Your task to perform on an android device: toggle javascript in the chrome app Image 0: 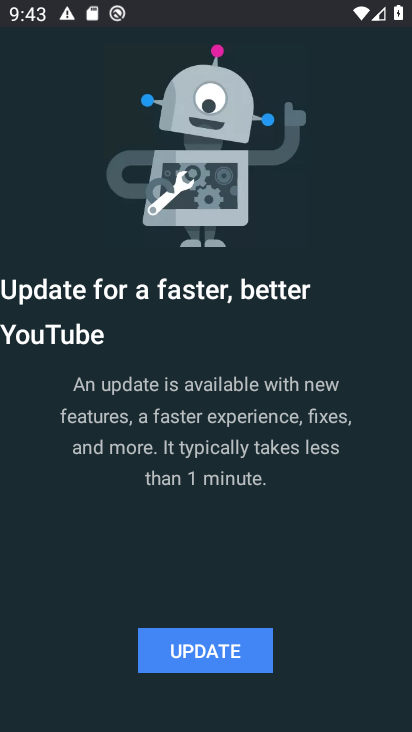
Step 0: press back button
Your task to perform on an android device: toggle javascript in the chrome app Image 1: 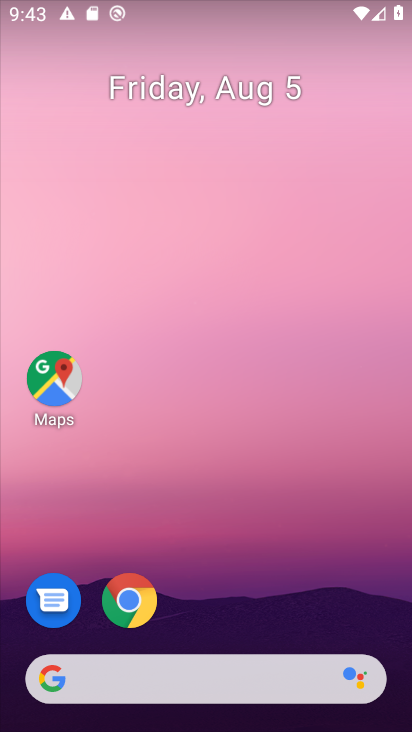
Step 1: click (147, 604)
Your task to perform on an android device: toggle javascript in the chrome app Image 2: 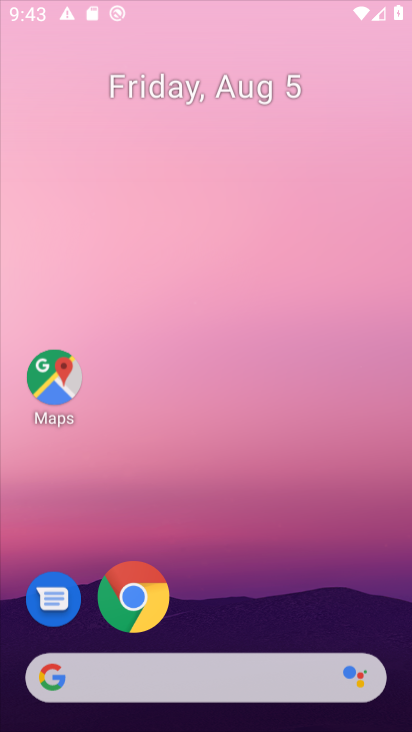
Step 2: click (147, 604)
Your task to perform on an android device: toggle javascript in the chrome app Image 3: 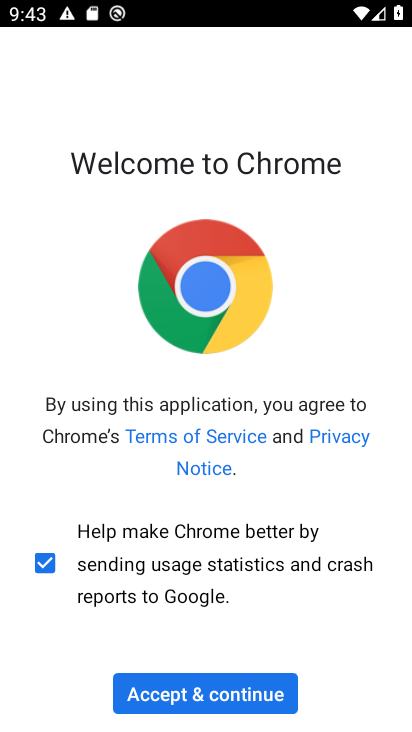
Step 3: click (290, 680)
Your task to perform on an android device: toggle javascript in the chrome app Image 4: 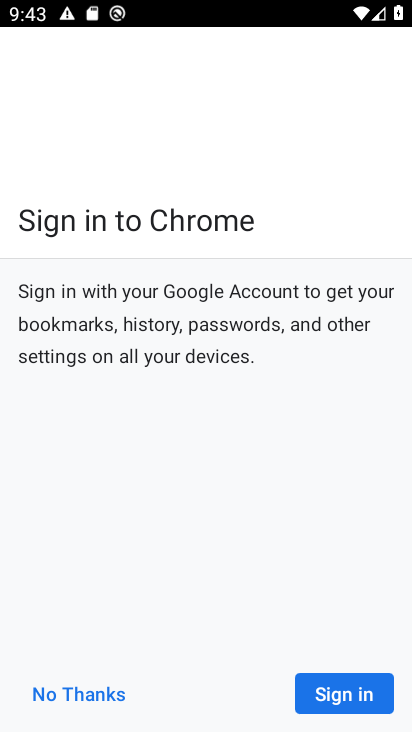
Step 4: click (274, 678)
Your task to perform on an android device: toggle javascript in the chrome app Image 5: 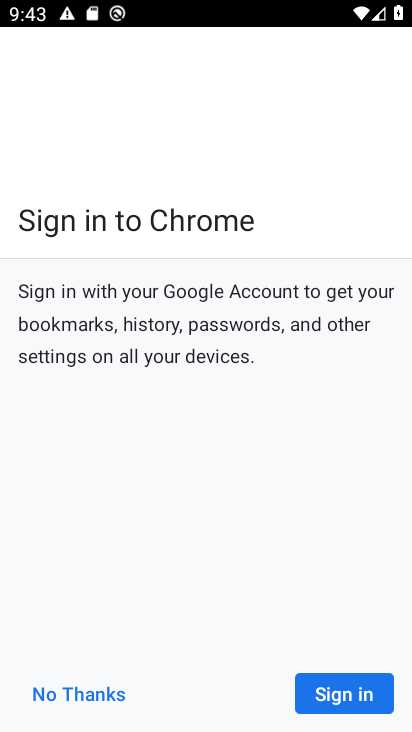
Step 5: click (106, 688)
Your task to perform on an android device: toggle javascript in the chrome app Image 6: 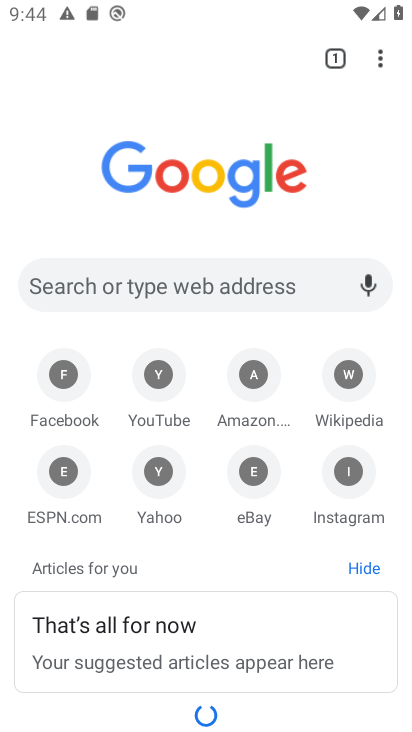
Step 6: click (386, 61)
Your task to perform on an android device: toggle javascript in the chrome app Image 7: 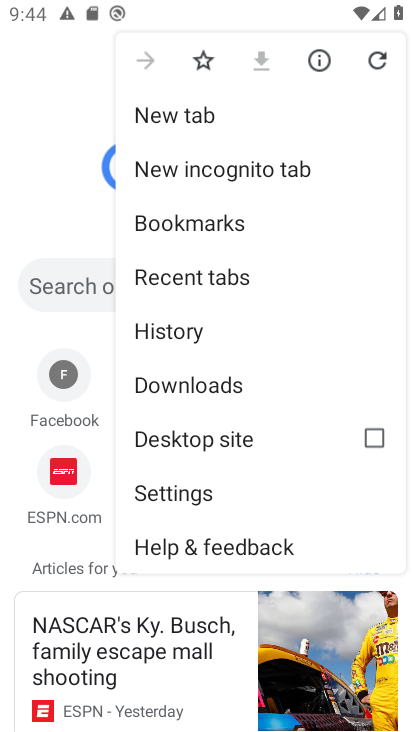
Step 7: click (311, 501)
Your task to perform on an android device: toggle javascript in the chrome app Image 8: 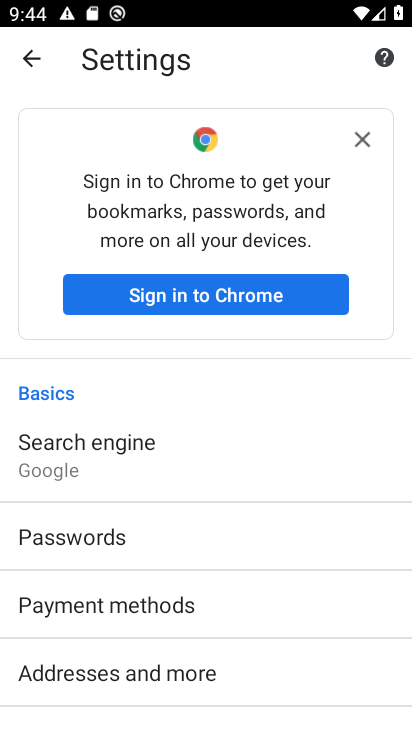
Step 8: drag from (317, 513) to (175, 103)
Your task to perform on an android device: toggle javascript in the chrome app Image 9: 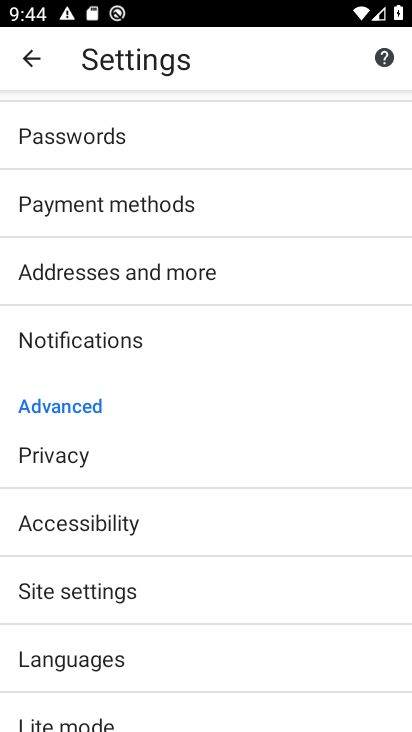
Step 9: click (183, 601)
Your task to perform on an android device: toggle javascript in the chrome app Image 10: 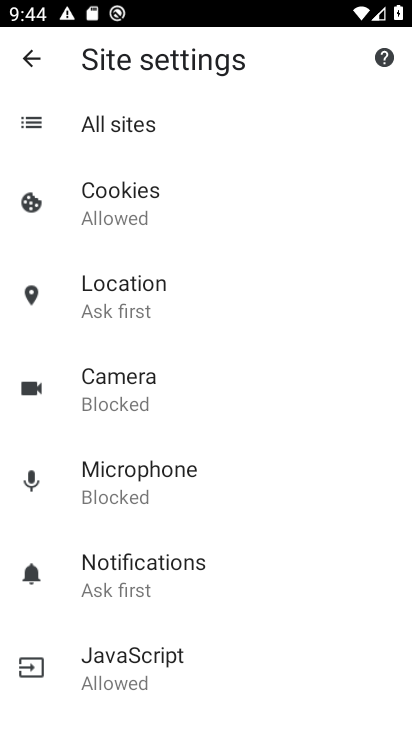
Step 10: click (196, 663)
Your task to perform on an android device: toggle javascript in the chrome app Image 11: 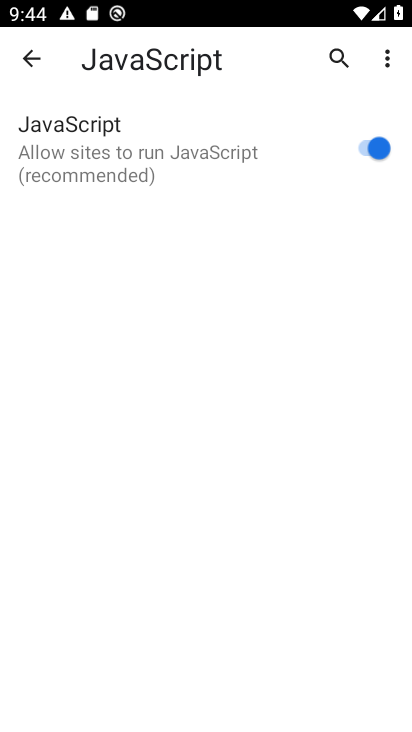
Step 11: click (383, 148)
Your task to perform on an android device: toggle javascript in the chrome app Image 12: 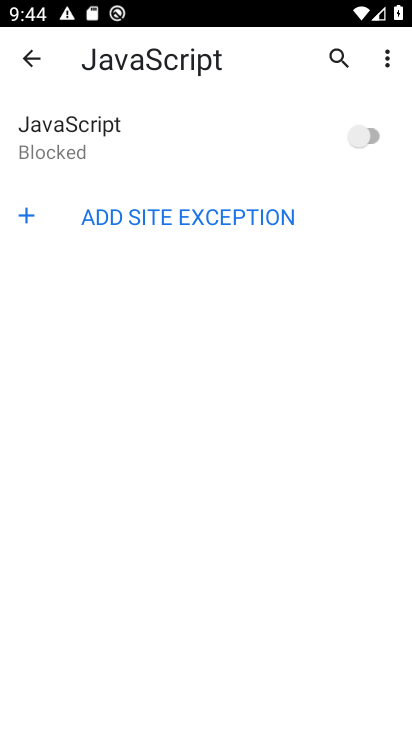
Step 12: task complete